Your task to perform on an android device: toggle translation in the chrome app Image 0: 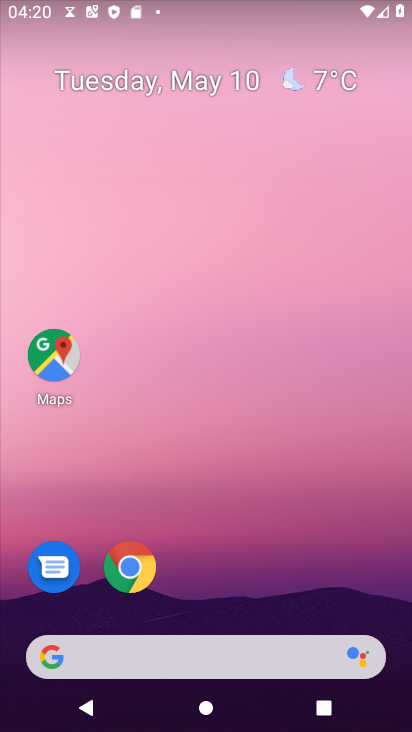
Step 0: drag from (302, 546) to (250, 33)
Your task to perform on an android device: toggle translation in the chrome app Image 1: 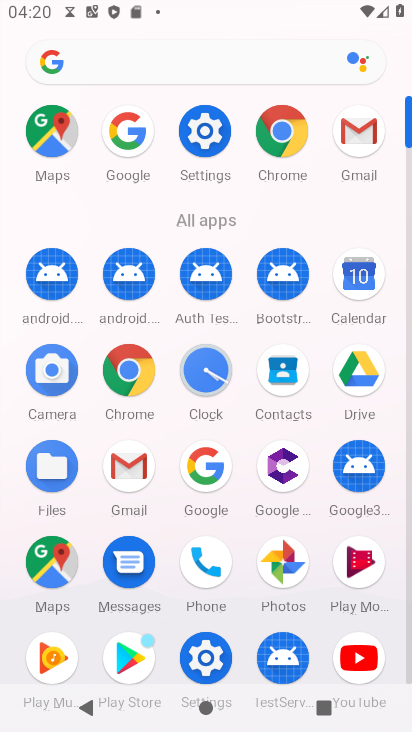
Step 1: click (275, 153)
Your task to perform on an android device: toggle translation in the chrome app Image 2: 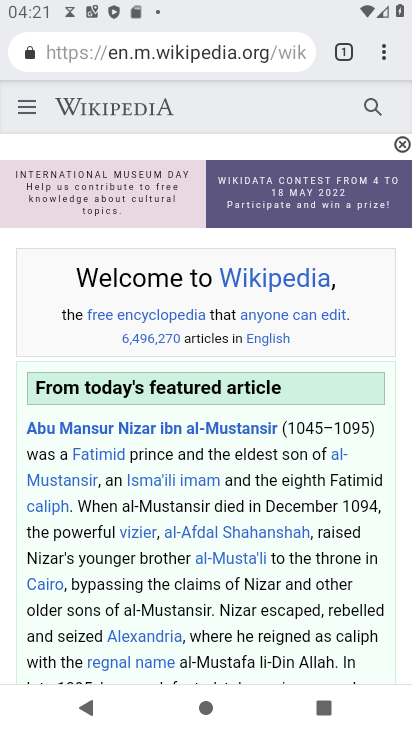
Step 2: click (374, 53)
Your task to perform on an android device: toggle translation in the chrome app Image 3: 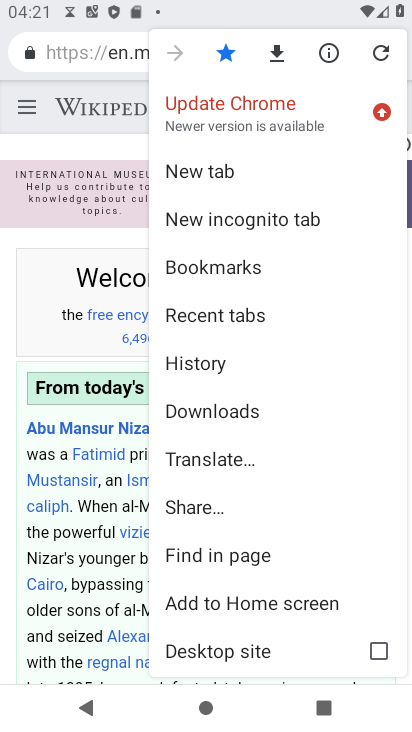
Step 3: drag from (234, 582) to (262, 429)
Your task to perform on an android device: toggle translation in the chrome app Image 4: 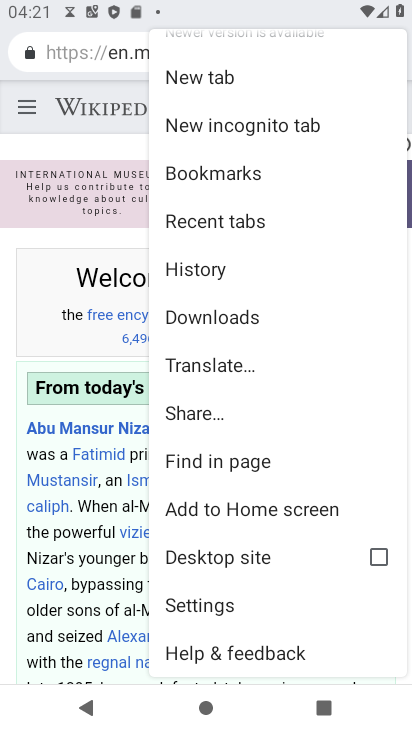
Step 4: click (202, 601)
Your task to perform on an android device: toggle translation in the chrome app Image 5: 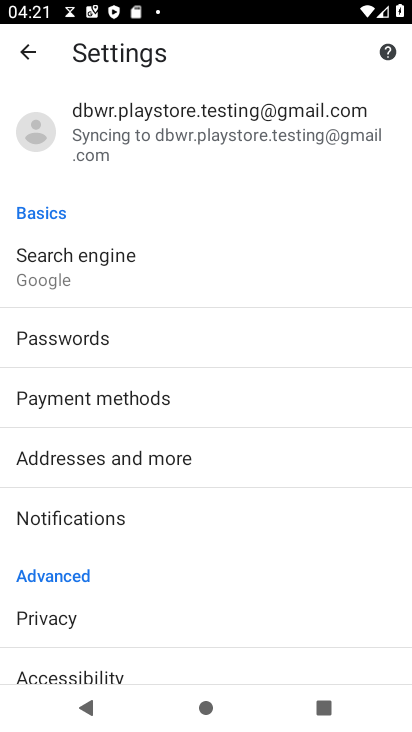
Step 5: drag from (146, 596) to (220, 452)
Your task to perform on an android device: toggle translation in the chrome app Image 6: 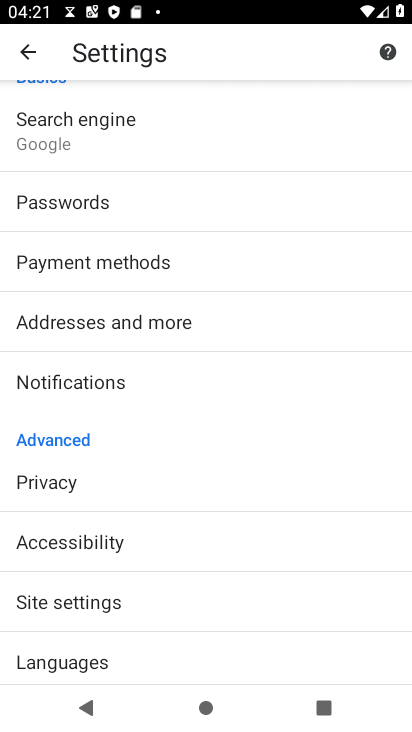
Step 6: click (77, 657)
Your task to perform on an android device: toggle translation in the chrome app Image 7: 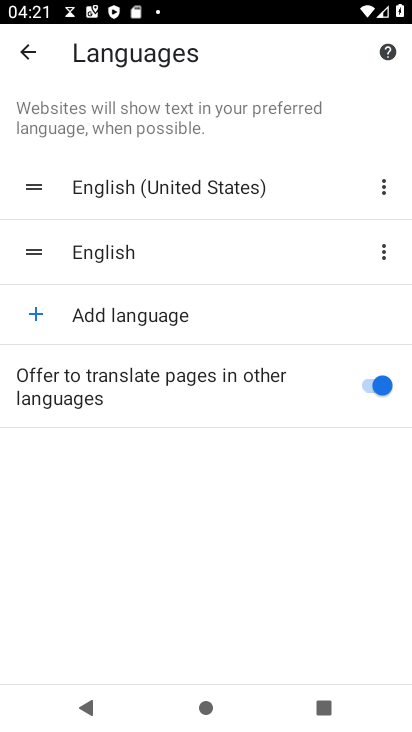
Step 7: click (370, 386)
Your task to perform on an android device: toggle translation in the chrome app Image 8: 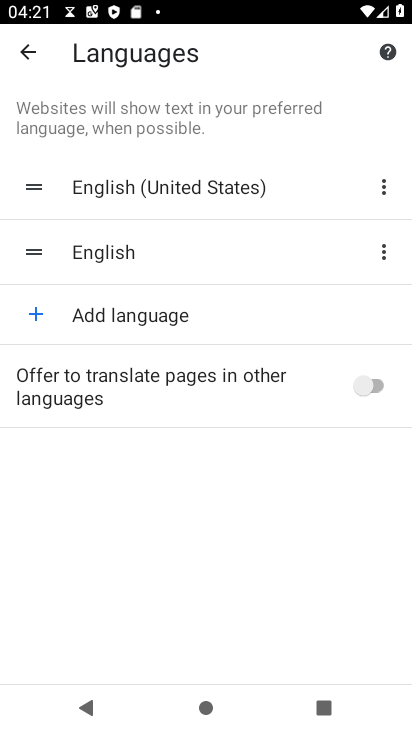
Step 8: task complete